Your task to perform on an android device: see creations saved in the google photos Image 0: 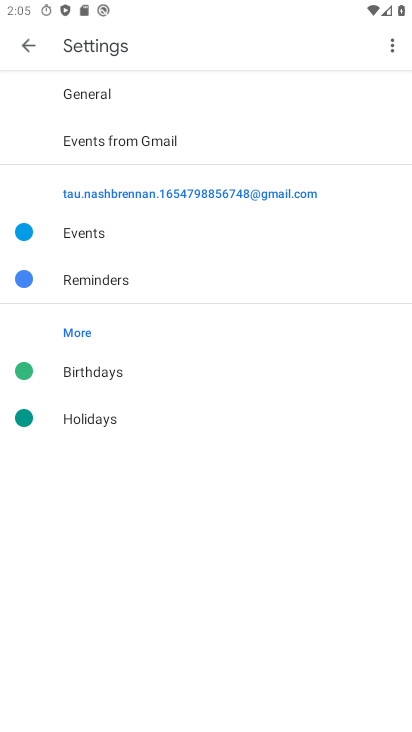
Step 0: press home button
Your task to perform on an android device: see creations saved in the google photos Image 1: 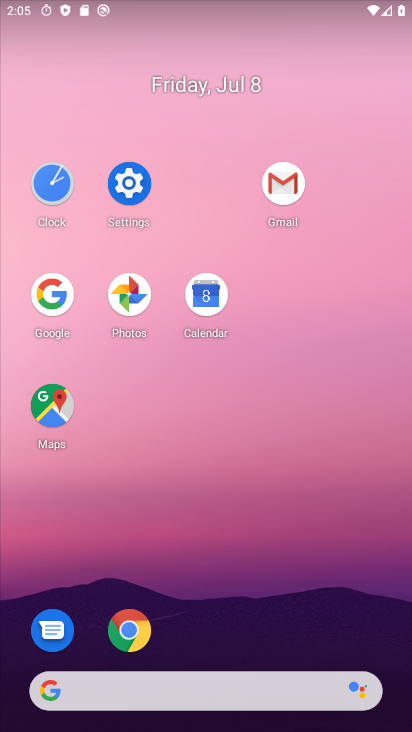
Step 1: click (122, 275)
Your task to perform on an android device: see creations saved in the google photos Image 2: 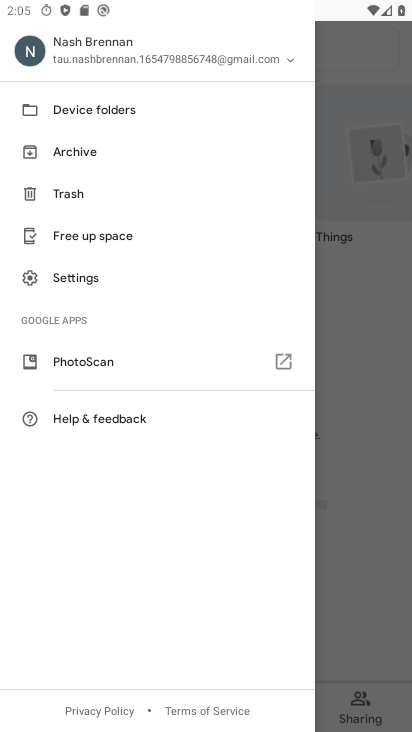
Step 2: press back button
Your task to perform on an android device: see creations saved in the google photos Image 3: 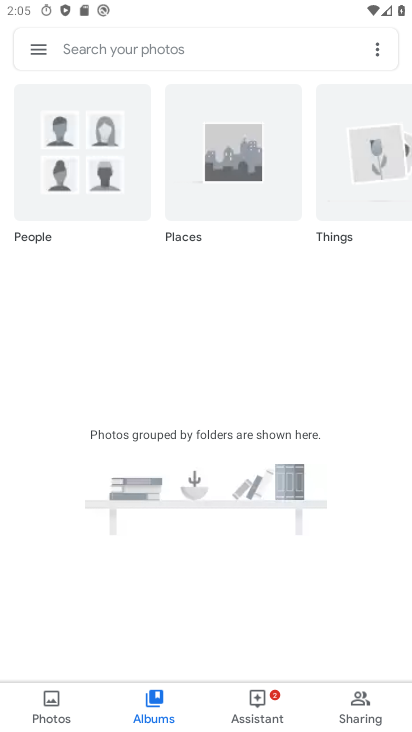
Step 3: click (173, 47)
Your task to perform on an android device: see creations saved in the google photos Image 4: 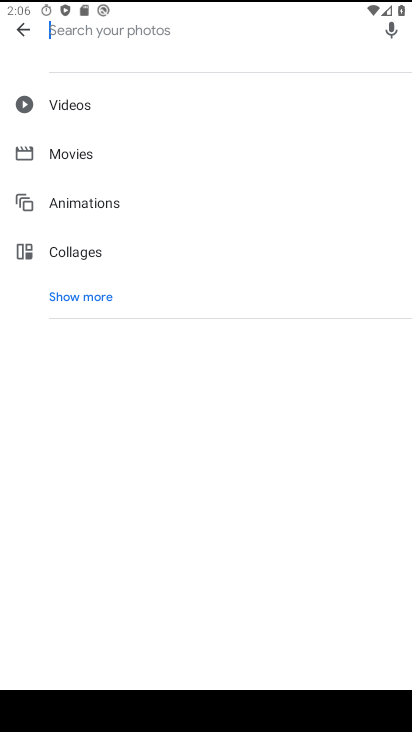
Step 4: click (84, 295)
Your task to perform on an android device: see creations saved in the google photos Image 5: 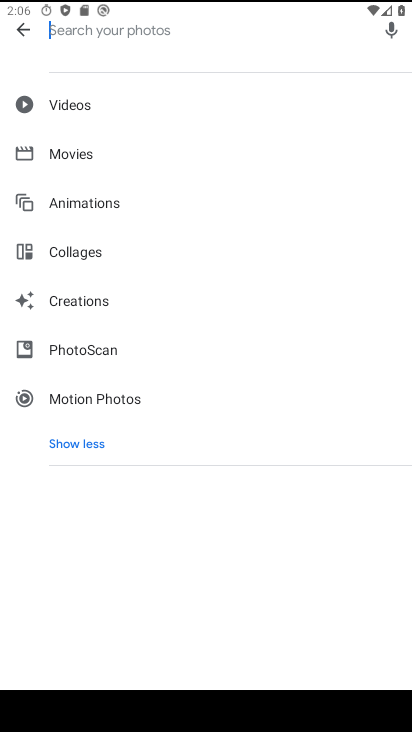
Step 5: click (115, 308)
Your task to perform on an android device: see creations saved in the google photos Image 6: 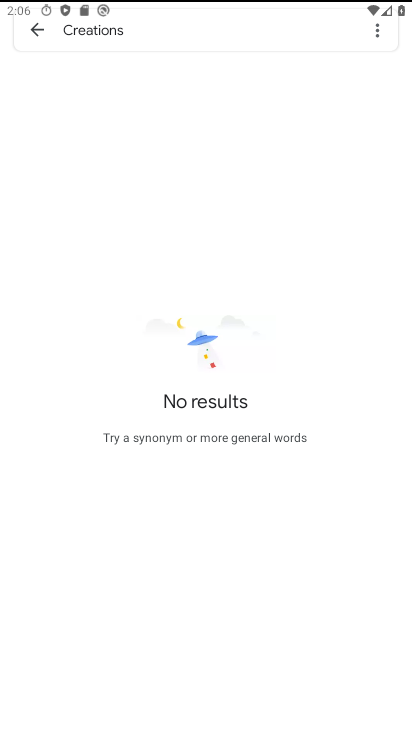
Step 6: task complete